Your task to perform on an android device: toggle show notifications on the lock screen Image 0: 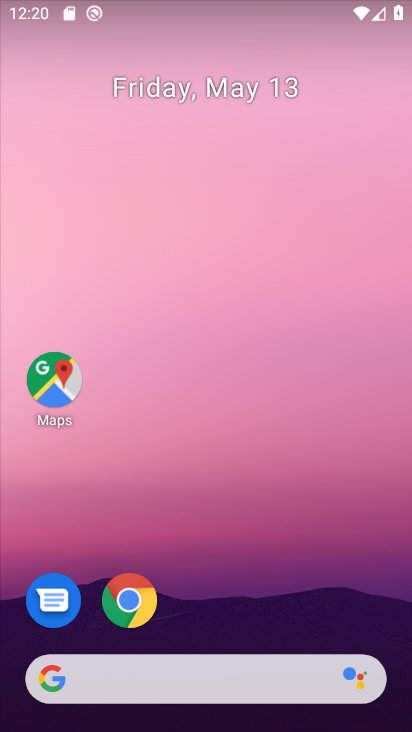
Step 0: drag from (200, 600) to (323, 101)
Your task to perform on an android device: toggle show notifications on the lock screen Image 1: 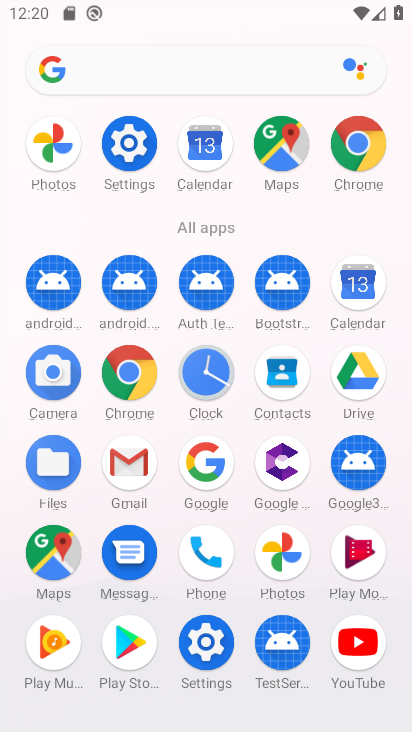
Step 1: drag from (239, 598) to (315, 373)
Your task to perform on an android device: toggle show notifications on the lock screen Image 2: 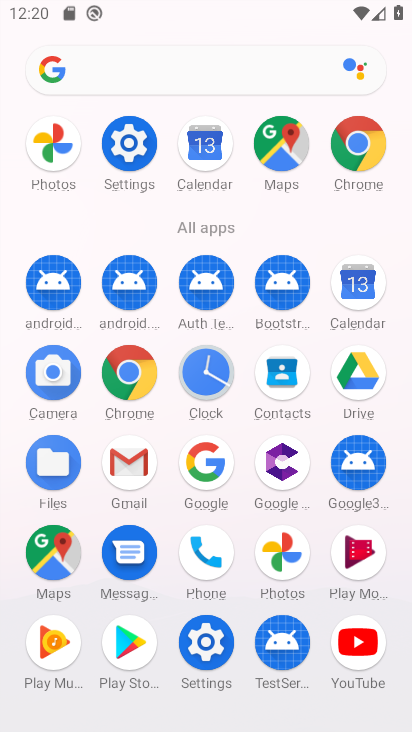
Step 2: click (206, 641)
Your task to perform on an android device: toggle show notifications on the lock screen Image 3: 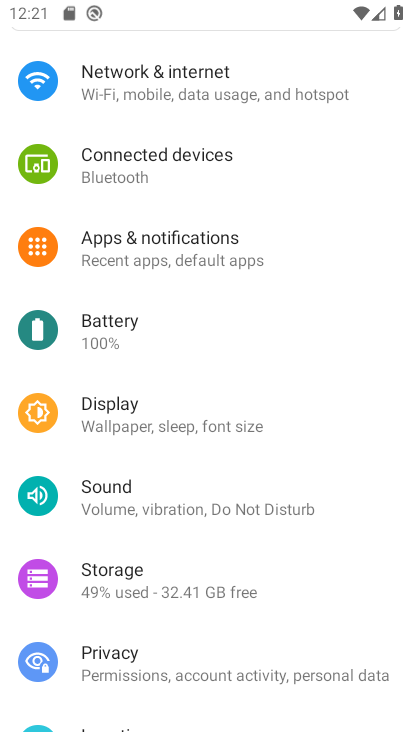
Step 3: drag from (224, 643) to (296, 480)
Your task to perform on an android device: toggle show notifications on the lock screen Image 4: 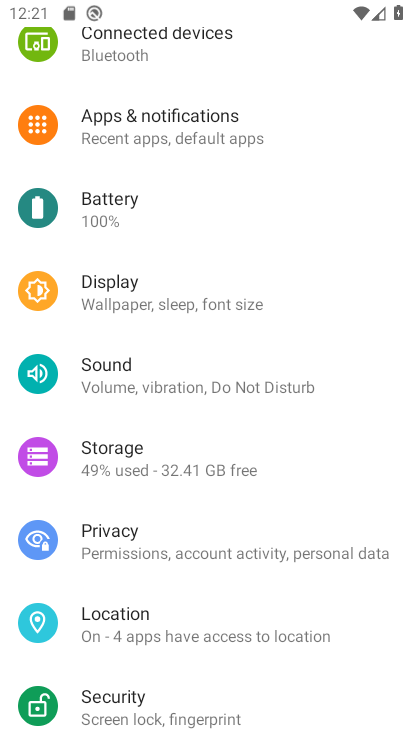
Step 4: click (223, 136)
Your task to perform on an android device: toggle show notifications on the lock screen Image 5: 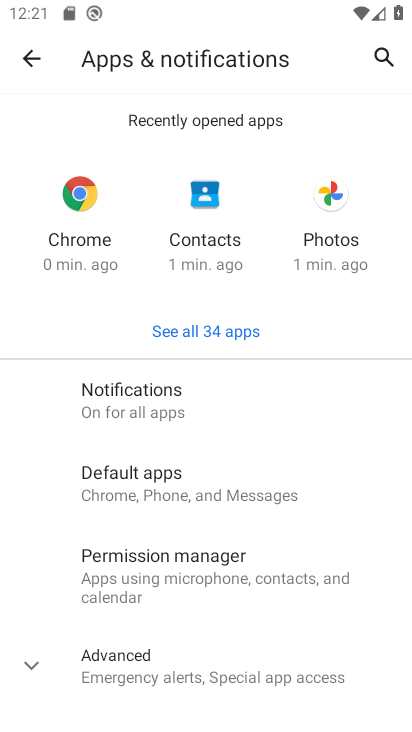
Step 5: drag from (180, 637) to (224, 453)
Your task to perform on an android device: toggle show notifications on the lock screen Image 6: 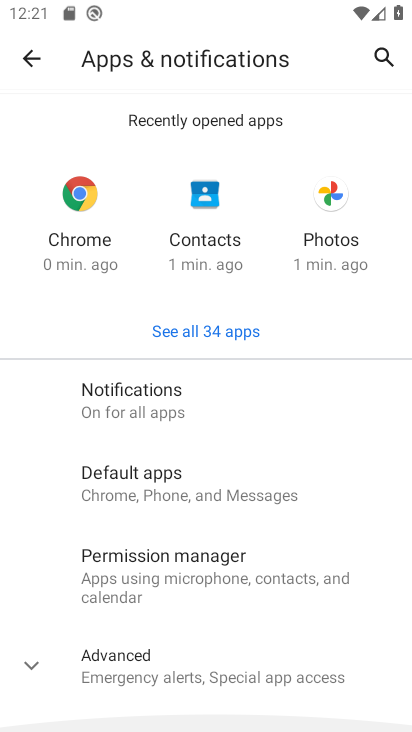
Step 6: click (219, 396)
Your task to perform on an android device: toggle show notifications on the lock screen Image 7: 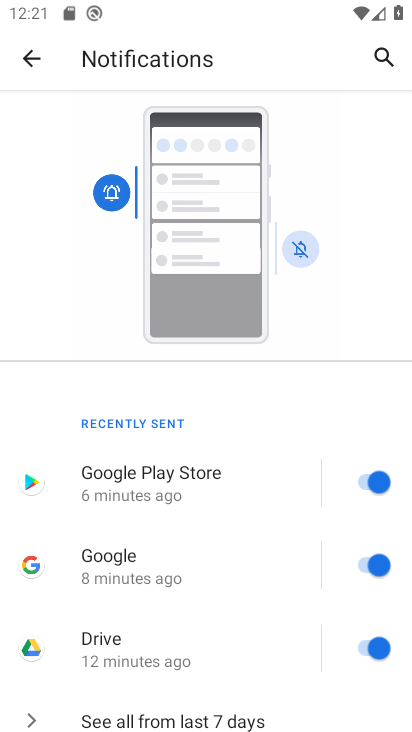
Step 7: drag from (197, 666) to (286, 277)
Your task to perform on an android device: toggle show notifications on the lock screen Image 8: 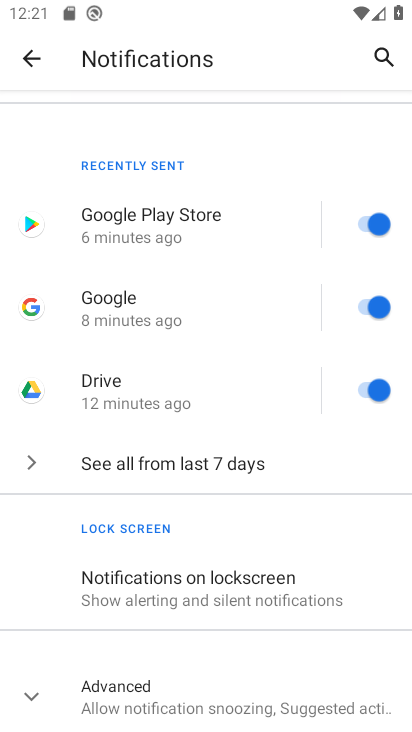
Step 8: click (183, 582)
Your task to perform on an android device: toggle show notifications on the lock screen Image 9: 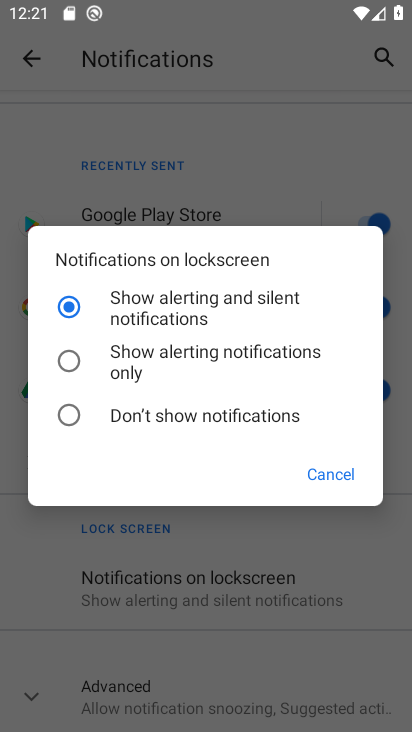
Step 9: click (195, 443)
Your task to perform on an android device: toggle show notifications on the lock screen Image 10: 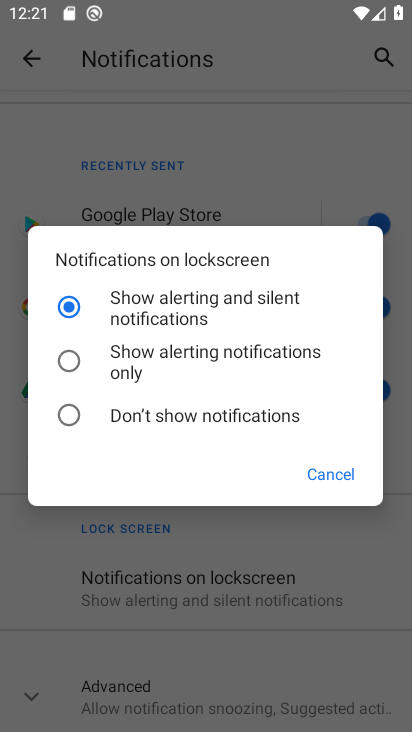
Step 10: click (195, 429)
Your task to perform on an android device: toggle show notifications on the lock screen Image 11: 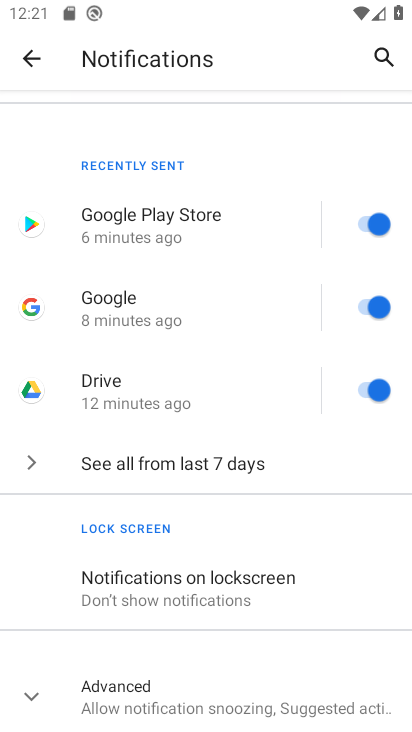
Step 11: task complete